Your task to perform on an android device: Open Chrome and go to settings Image 0: 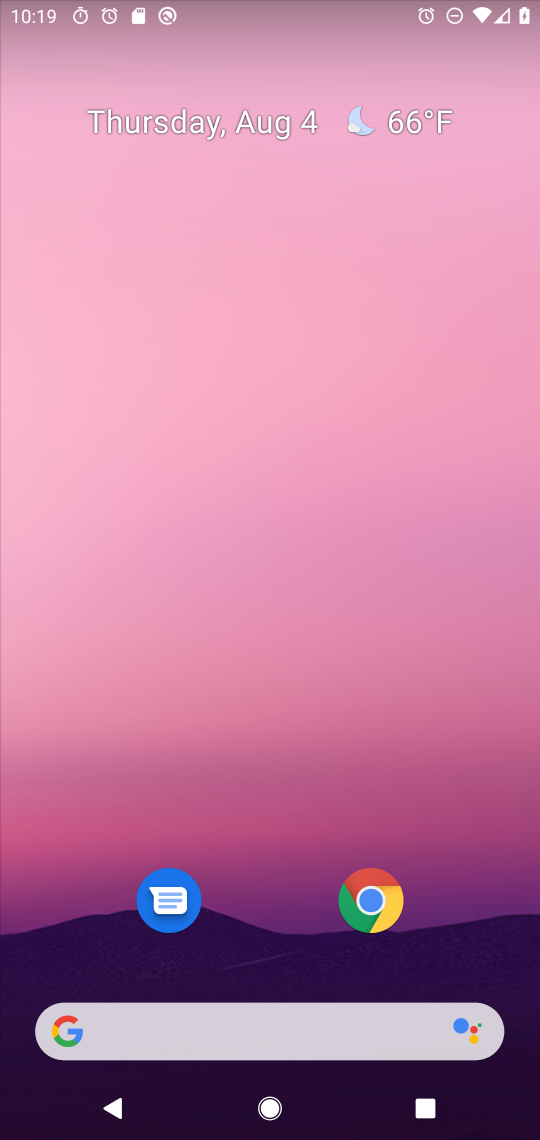
Step 0: click (371, 902)
Your task to perform on an android device: Open Chrome and go to settings Image 1: 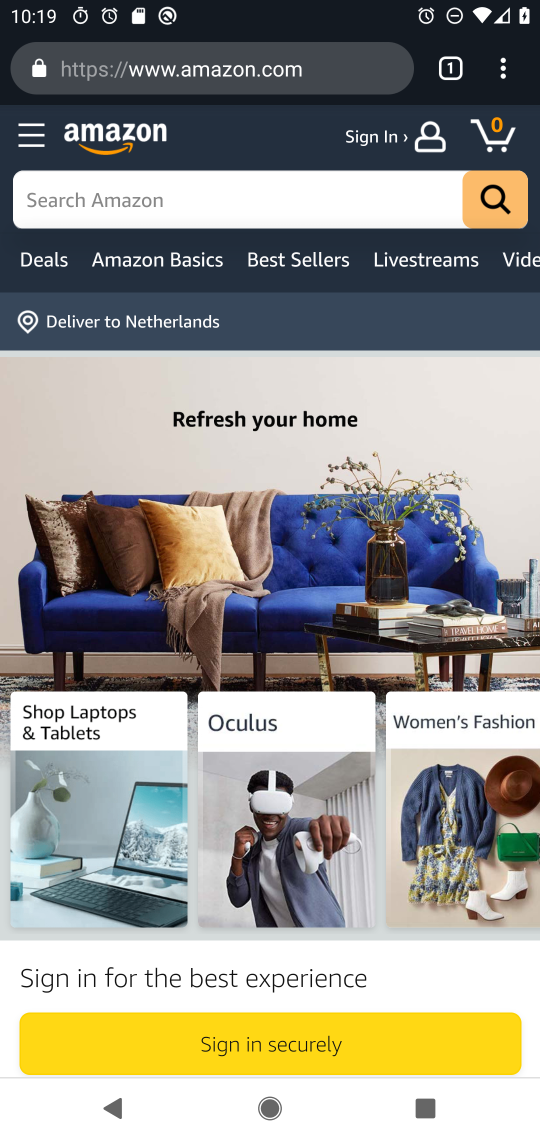
Step 1: task complete